Your task to perform on an android device: Open Android settings Image 0: 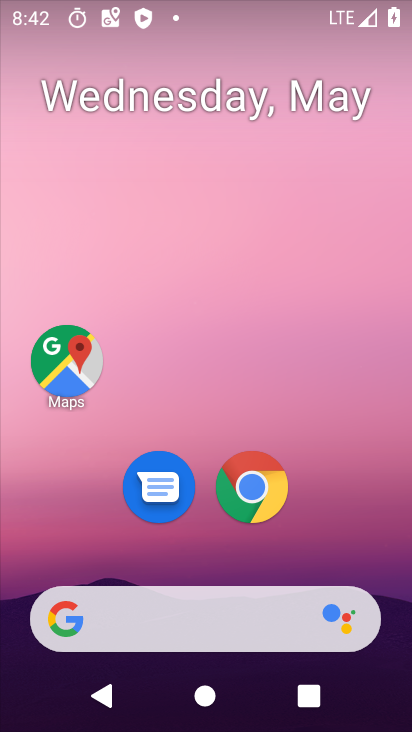
Step 0: drag from (226, 549) to (248, 161)
Your task to perform on an android device: Open Android settings Image 1: 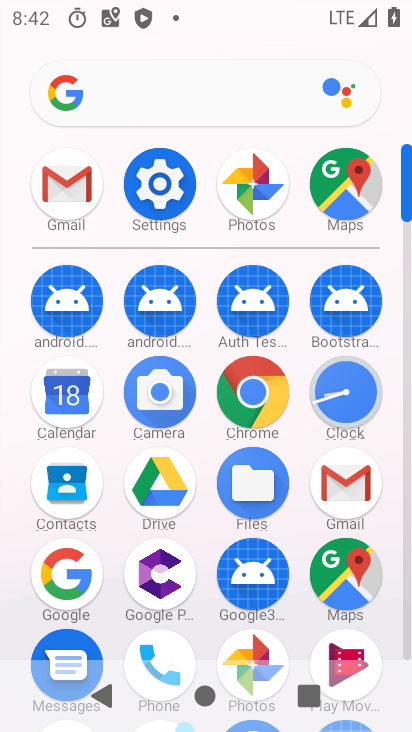
Step 1: click (181, 174)
Your task to perform on an android device: Open Android settings Image 2: 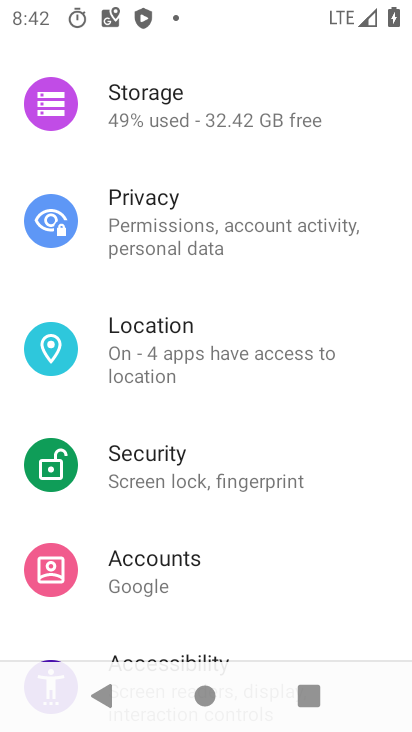
Step 2: task complete